Your task to perform on an android device: Open battery settings Image 0: 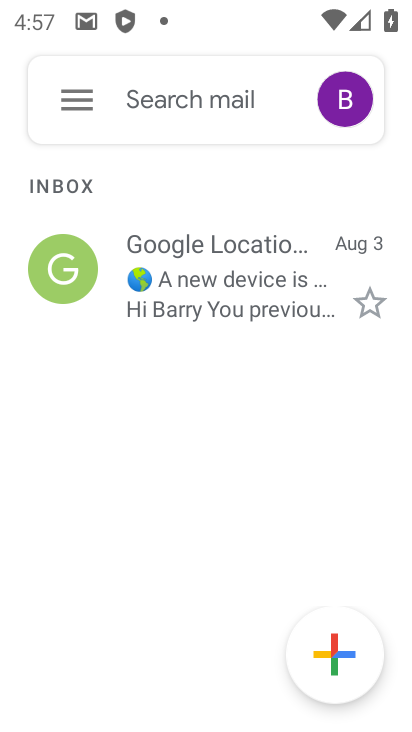
Step 0: press home button
Your task to perform on an android device: Open battery settings Image 1: 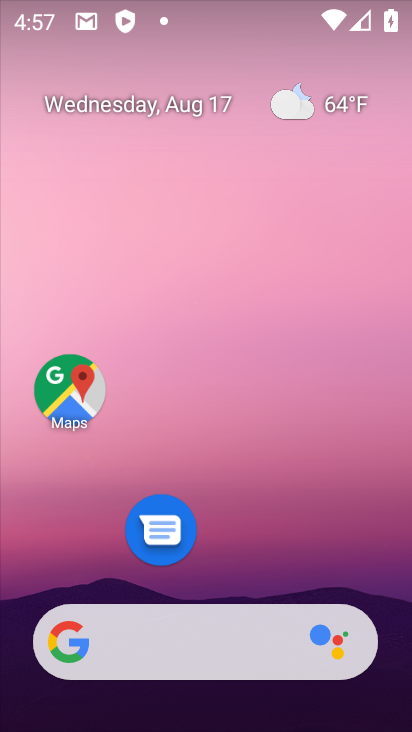
Step 1: drag from (205, 487) to (198, 29)
Your task to perform on an android device: Open battery settings Image 2: 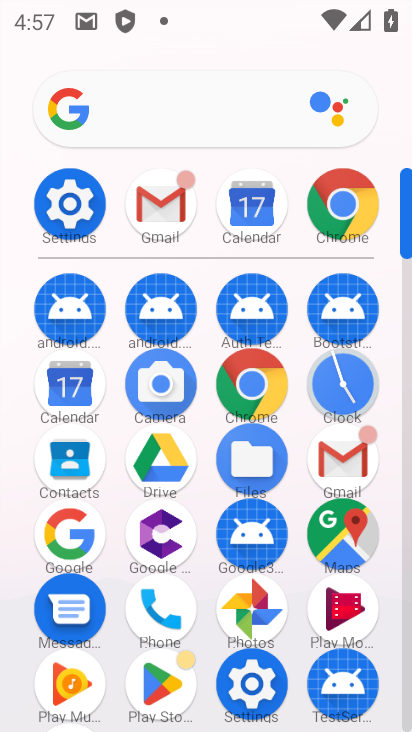
Step 2: click (69, 215)
Your task to perform on an android device: Open battery settings Image 3: 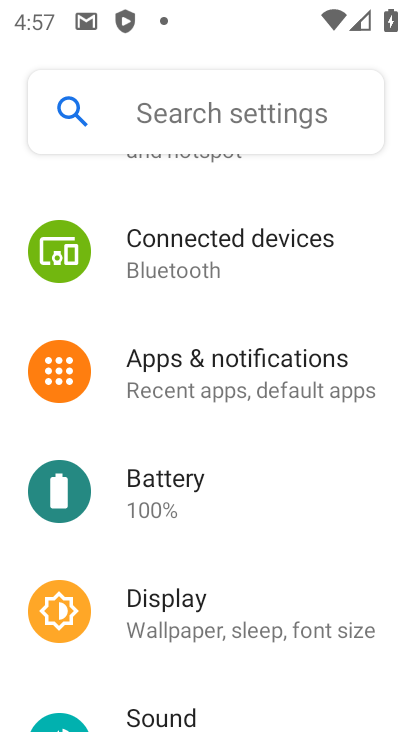
Step 3: click (166, 507)
Your task to perform on an android device: Open battery settings Image 4: 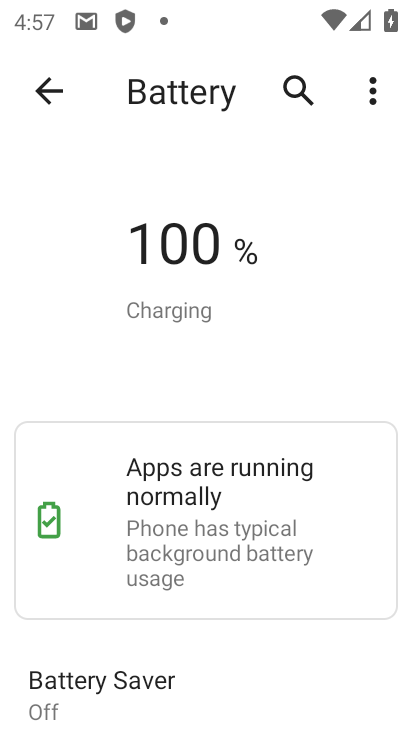
Step 4: task complete